Your task to perform on an android device: turn on wifi Image 0: 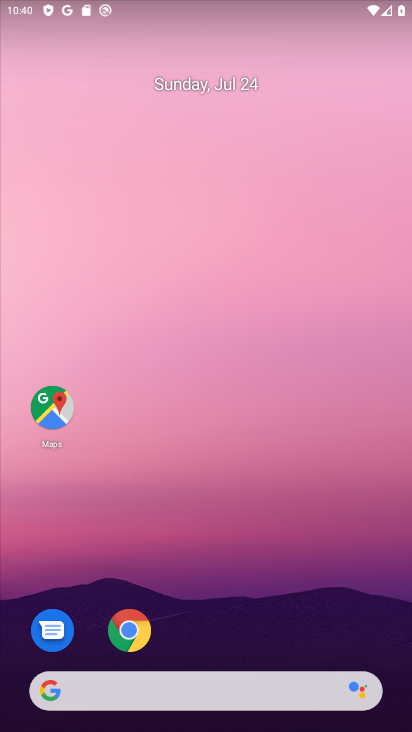
Step 0: press home button
Your task to perform on an android device: turn on wifi Image 1: 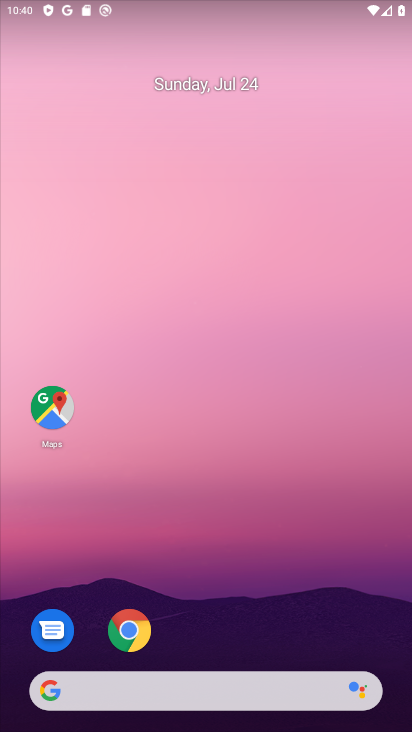
Step 1: drag from (303, 595) to (314, 186)
Your task to perform on an android device: turn on wifi Image 2: 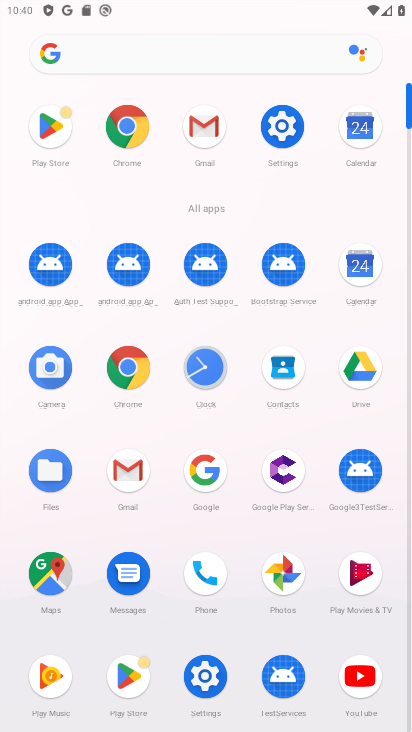
Step 2: click (282, 123)
Your task to perform on an android device: turn on wifi Image 3: 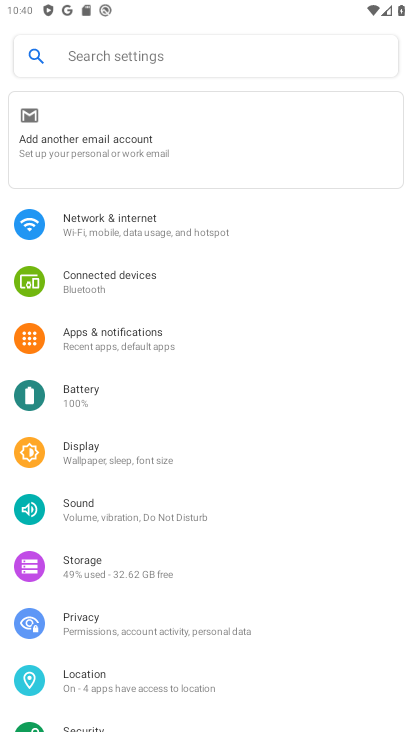
Step 3: click (110, 226)
Your task to perform on an android device: turn on wifi Image 4: 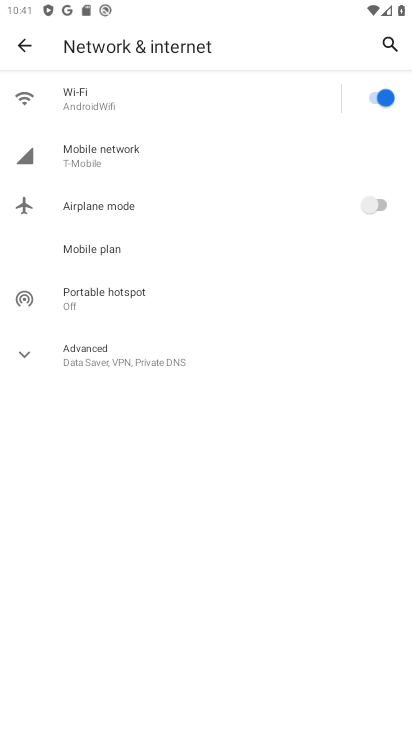
Step 4: task complete